Your task to perform on an android device: What is the news today? Image 0: 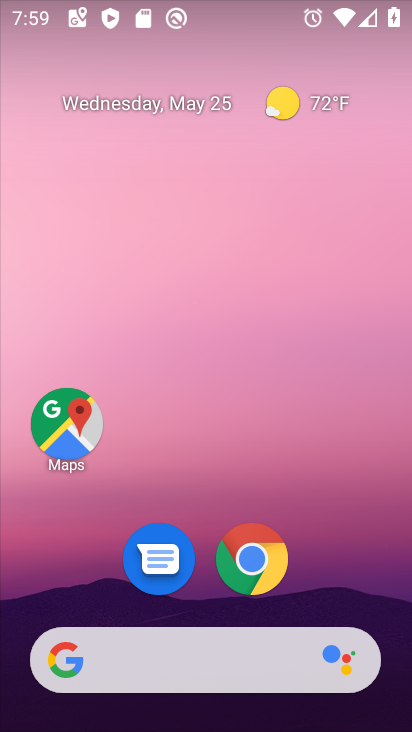
Step 0: drag from (156, 657) to (208, 181)
Your task to perform on an android device: What is the news today? Image 1: 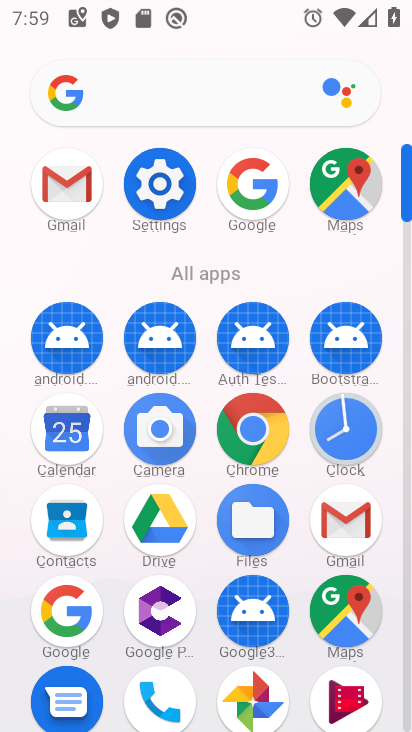
Step 1: click (70, 612)
Your task to perform on an android device: What is the news today? Image 2: 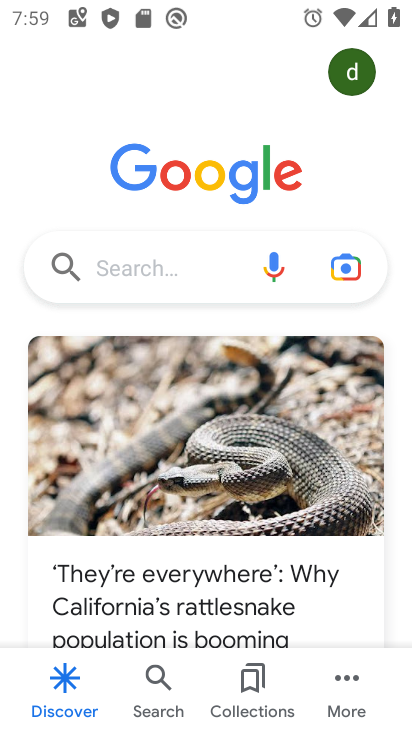
Step 2: drag from (206, 565) to (244, 343)
Your task to perform on an android device: What is the news today? Image 3: 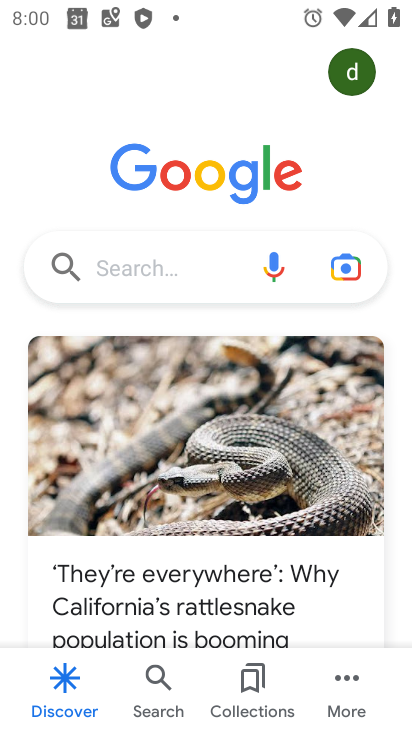
Step 3: click (183, 260)
Your task to perform on an android device: What is the news today? Image 4: 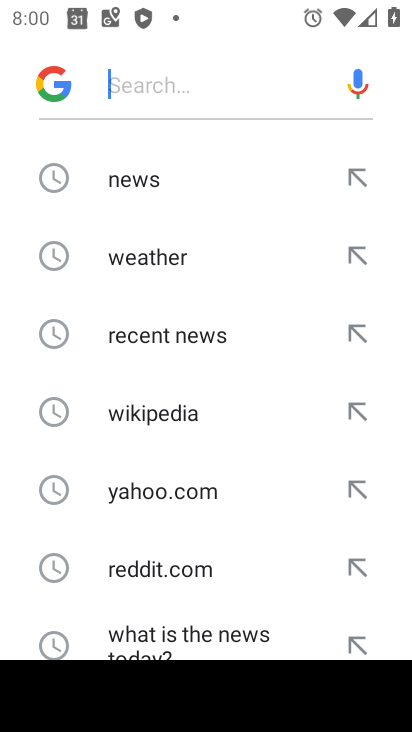
Step 4: click (201, 346)
Your task to perform on an android device: What is the news today? Image 5: 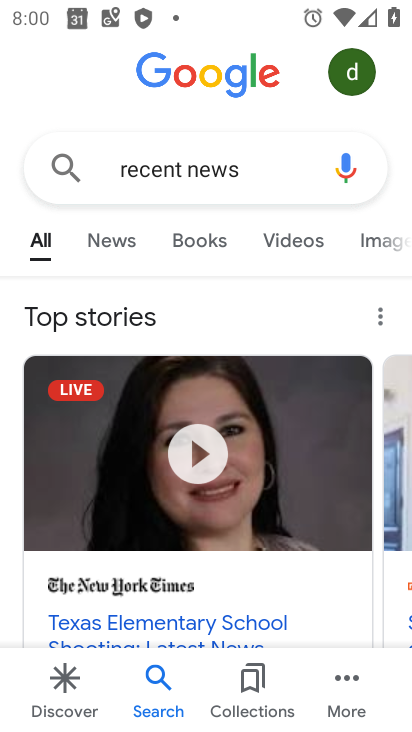
Step 5: click (104, 244)
Your task to perform on an android device: What is the news today? Image 6: 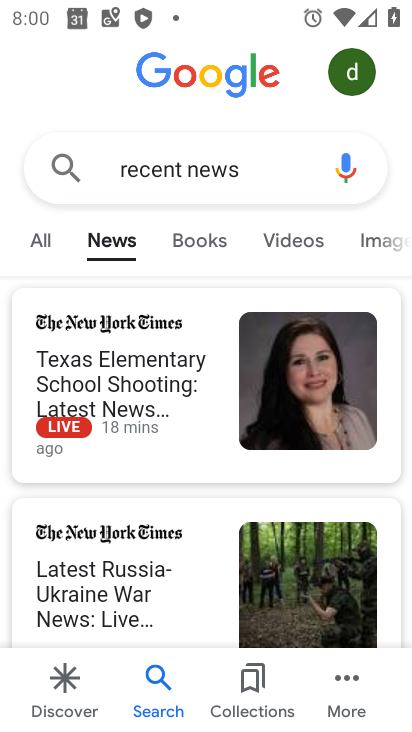
Step 6: task complete